Your task to perform on an android device: turn on location history Image 0: 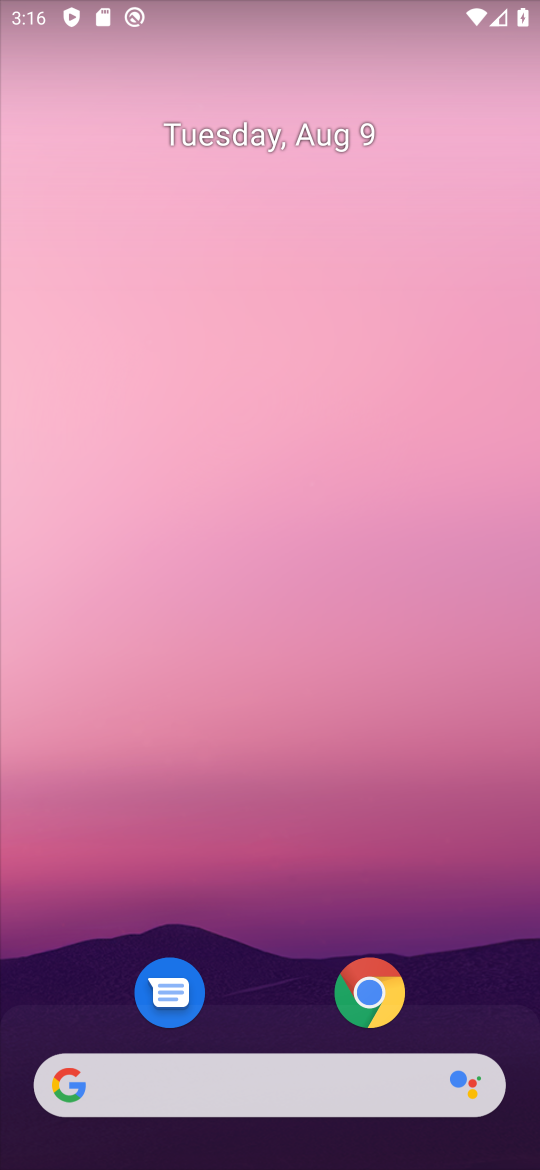
Step 0: drag from (261, 1007) to (428, 130)
Your task to perform on an android device: turn on location history Image 1: 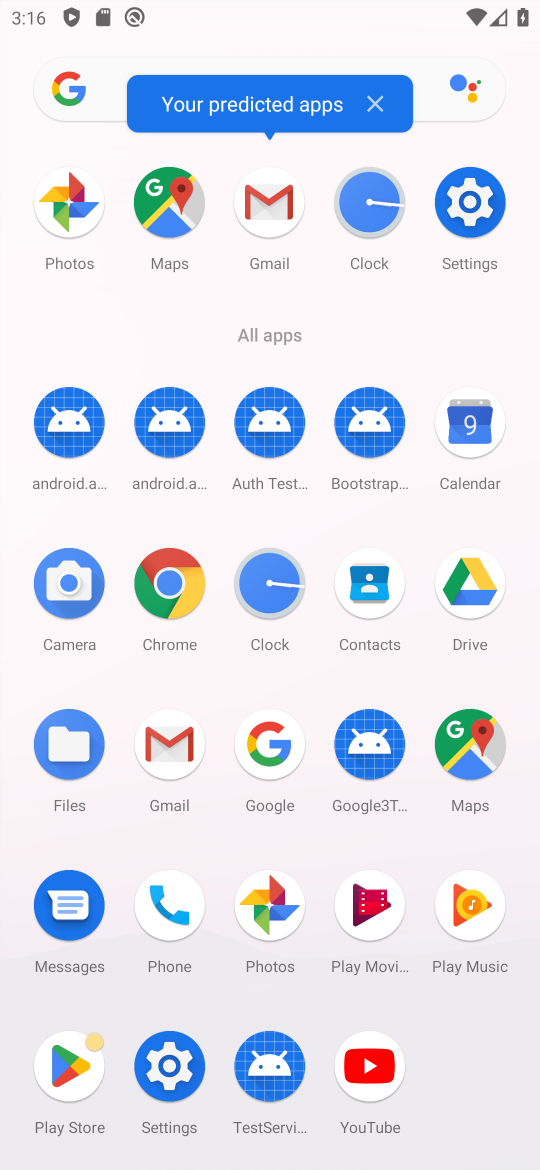
Step 1: click (452, 209)
Your task to perform on an android device: turn on location history Image 2: 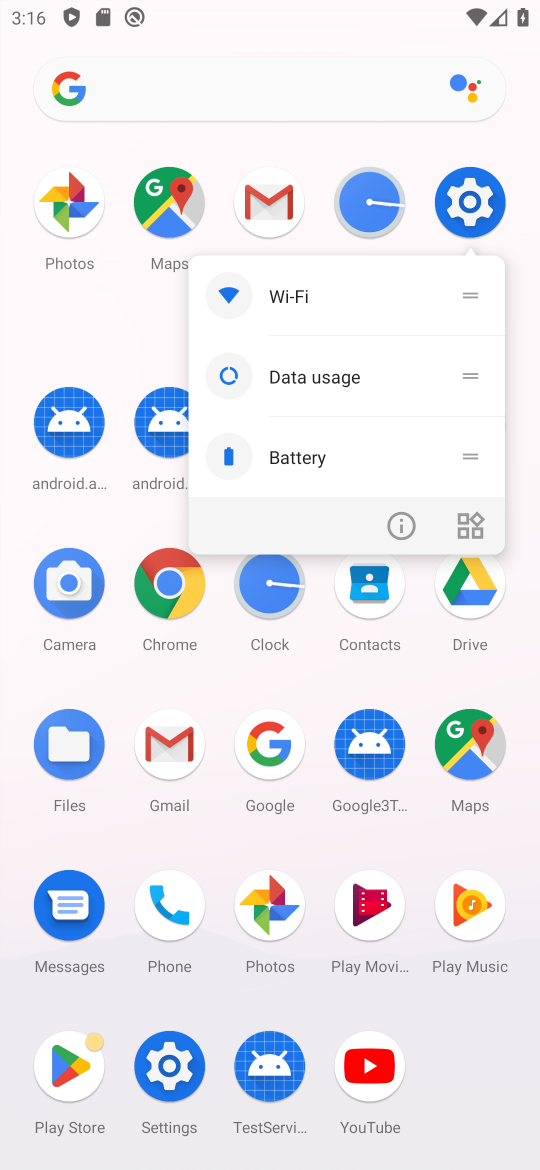
Step 2: click (457, 208)
Your task to perform on an android device: turn on location history Image 3: 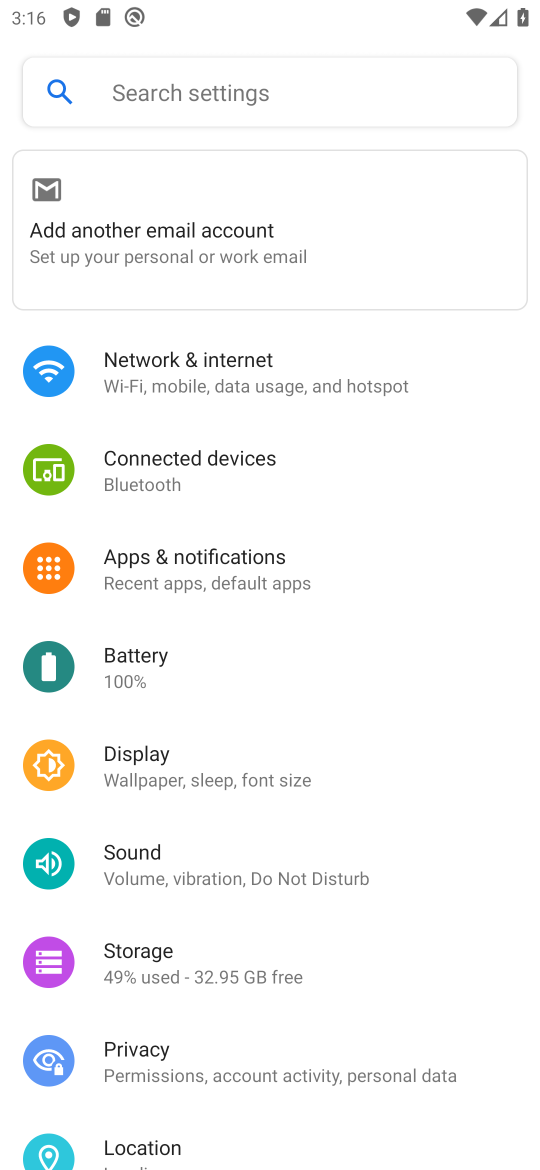
Step 3: click (179, 1150)
Your task to perform on an android device: turn on location history Image 4: 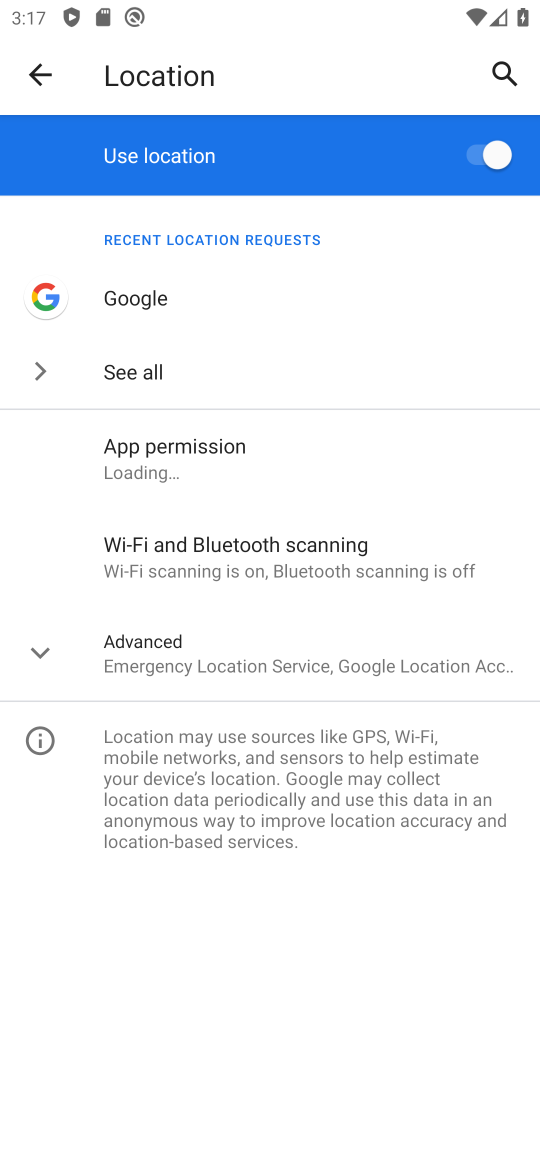
Step 4: click (227, 649)
Your task to perform on an android device: turn on location history Image 5: 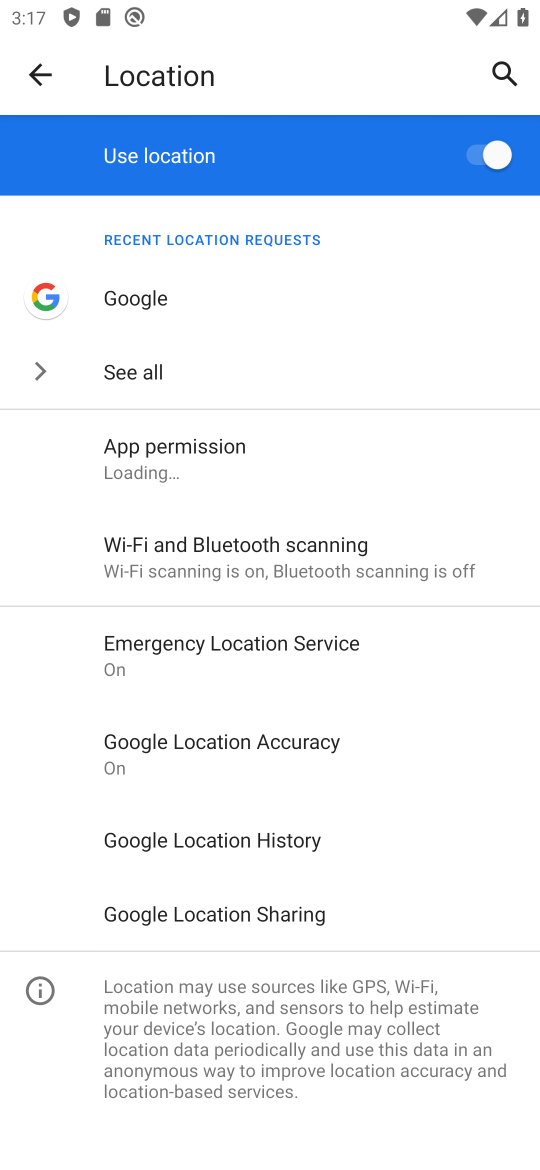
Step 5: click (275, 828)
Your task to perform on an android device: turn on location history Image 6: 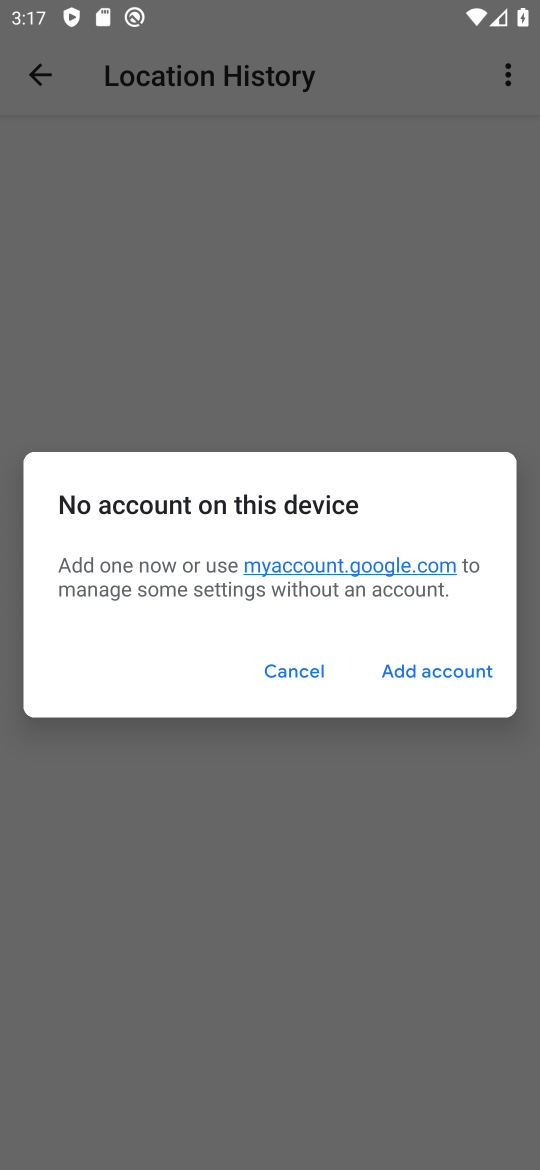
Step 6: click (299, 675)
Your task to perform on an android device: turn on location history Image 7: 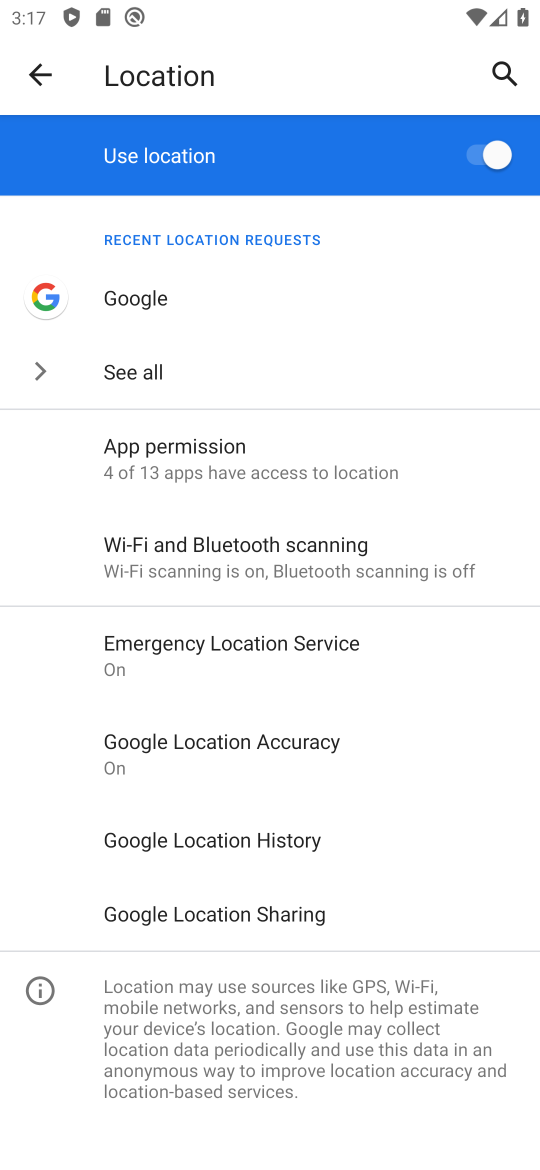
Step 7: click (281, 839)
Your task to perform on an android device: turn on location history Image 8: 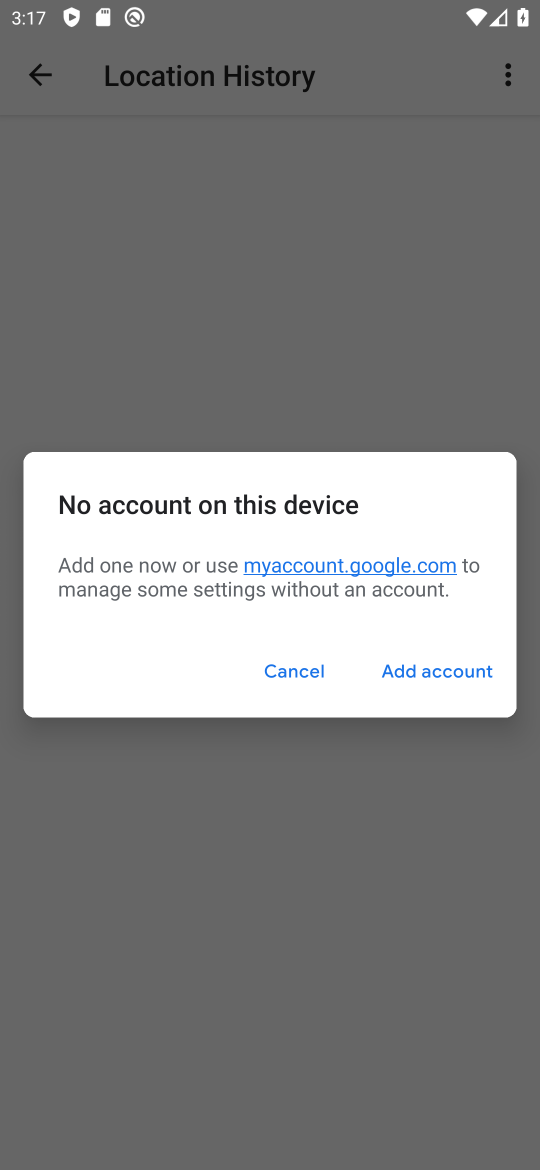
Step 8: click (291, 667)
Your task to perform on an android device: turn on location history Image 9: 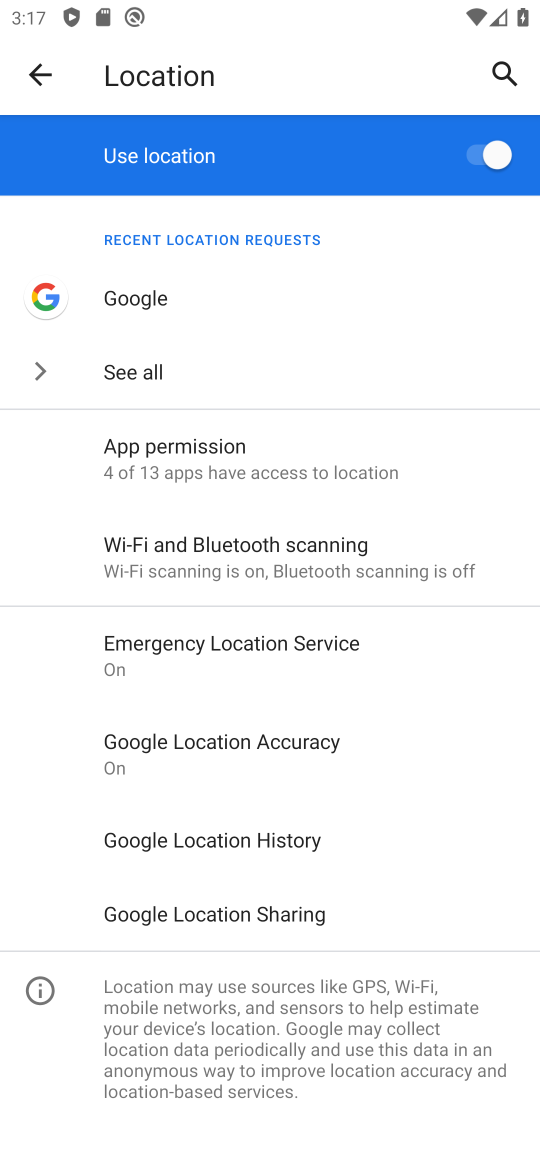
Step 9: task complete